Your task to perform on an android device: toggle wifi Image 0: 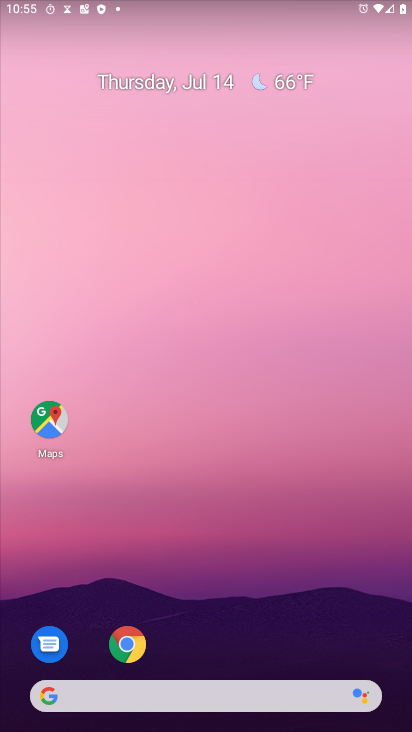
Step 0: drag from (178, 544) to (114, 207)
Your task to perform on an android device: toggle wifi Image 1: 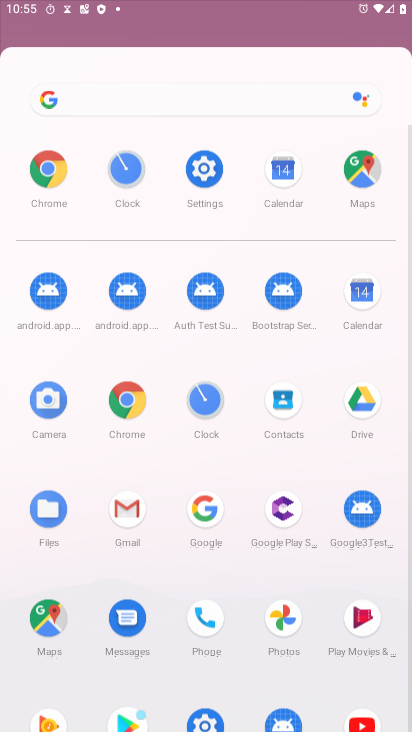
Step 1: drag from (238, 513) to (219, 330)
Your task to perform on an android device: toggle wifi Image 2: 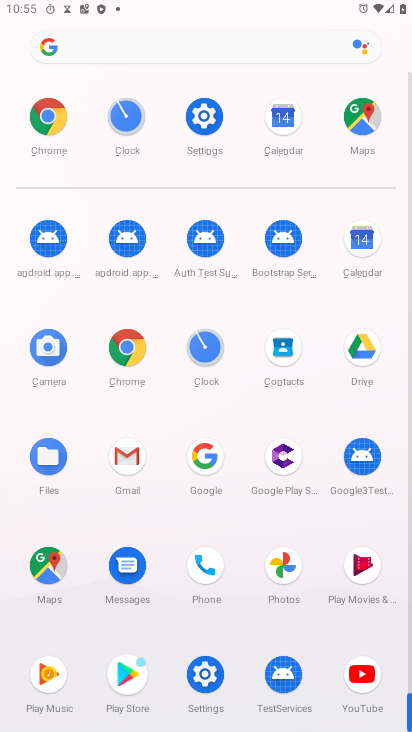
Step 2: click (215, 114)
Your task to perform on an android device: toggle wifi Image 3: 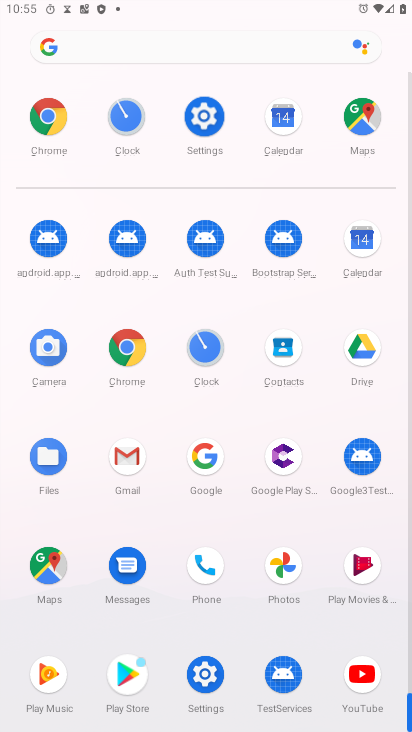
Step 3: click (204, 114)
Your task to perform on an android device: toggle wifi Image 4: 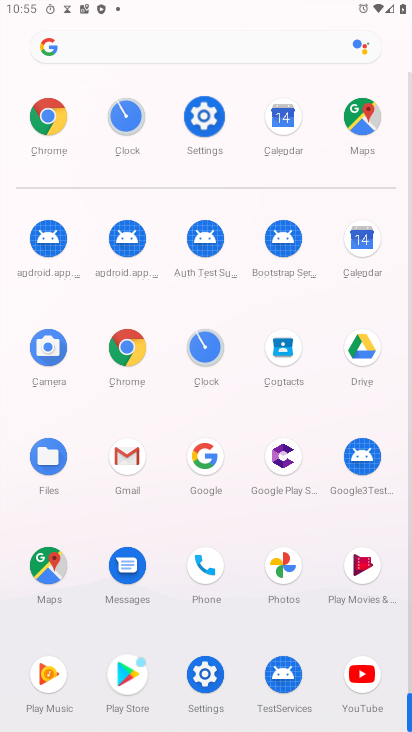
Step 4: click (204, 114)
Your task to perform on an android device: toggle wifi Image 5: 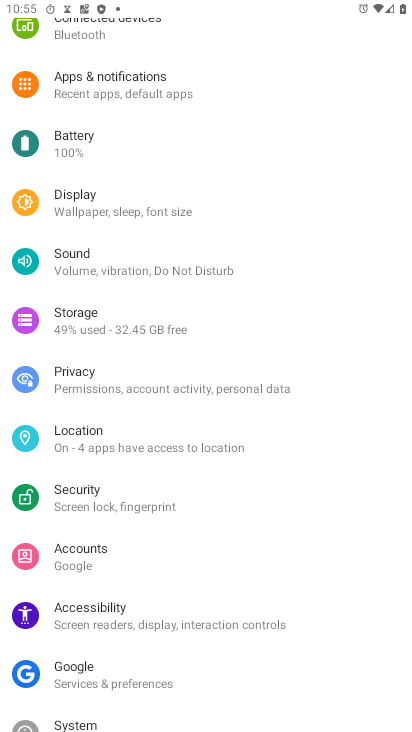
Step 5: click (163, 542)
Your task to perform on an android device: toggle wifi Image 6: 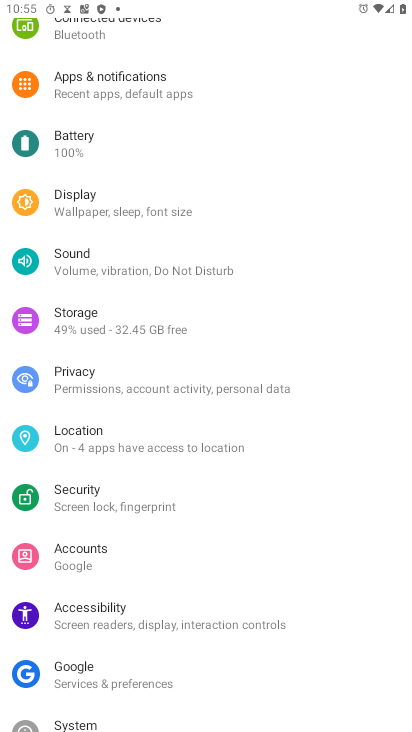
Step 6: drag from (109, 204) to (167, 519)
Your task to perform on an android device: toggle wifi Image 7: 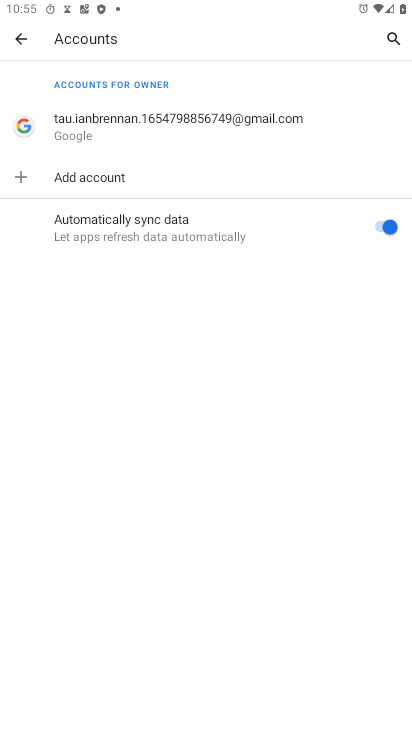
Step 7: click (109, 102)
Your task to perform on an android device: toggle wifi Image 8: 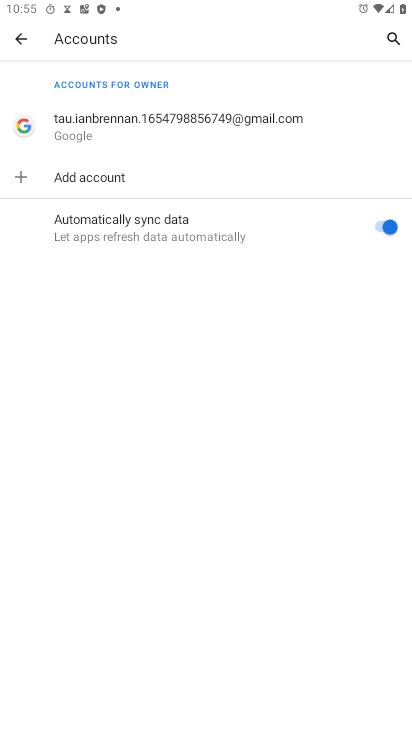
Step 8: click (22, 41)
Your task to perform on an android device: toggle wifi Image 9: 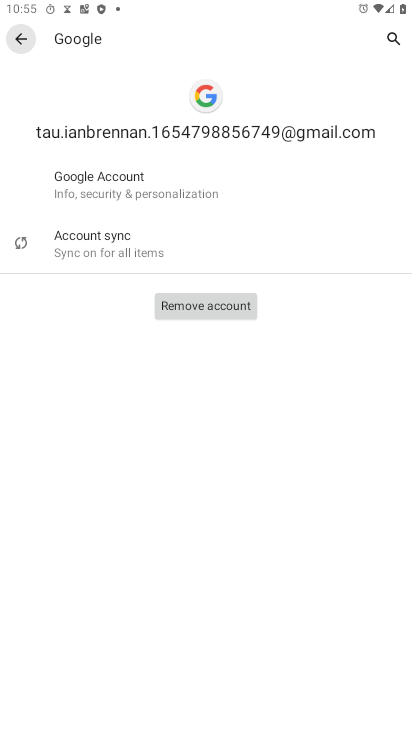
Step 9: click (22, 41)
Your task to perform on an android device: toggle wifi Image 10: 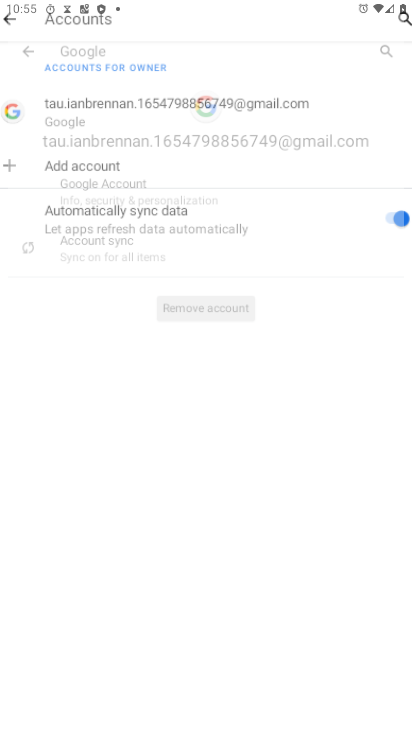
Step 10: click (23, 43)
Your task to perform on an android device: toggle wifi Image 11: 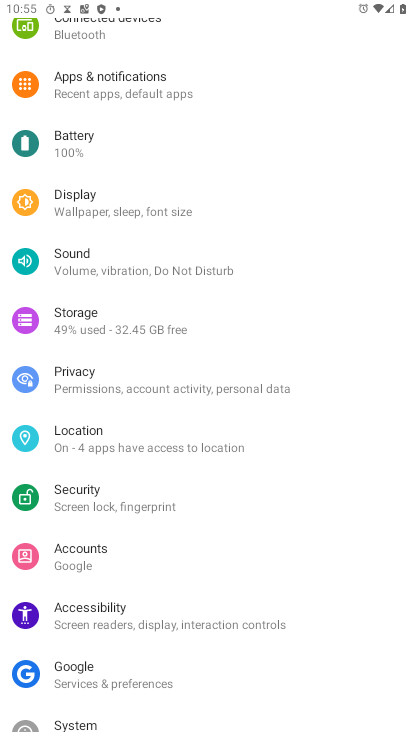
Step 11: click (99, 88)
Your task to perform on an android device: toggle wifi Image 12: 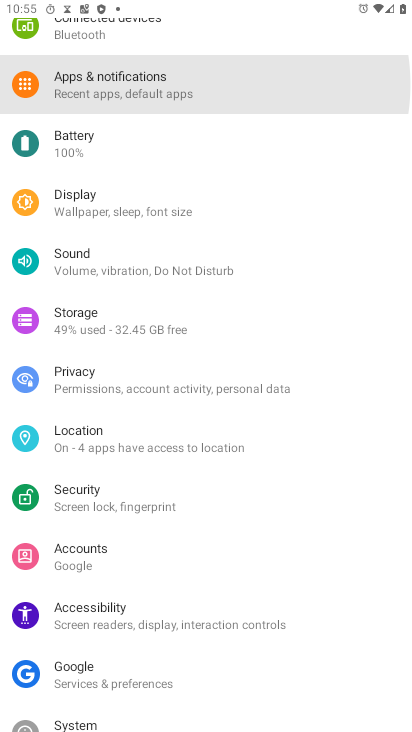
Step 12: click (100, 87)
Your task to perform on an android device: toggle wifi Image 13: 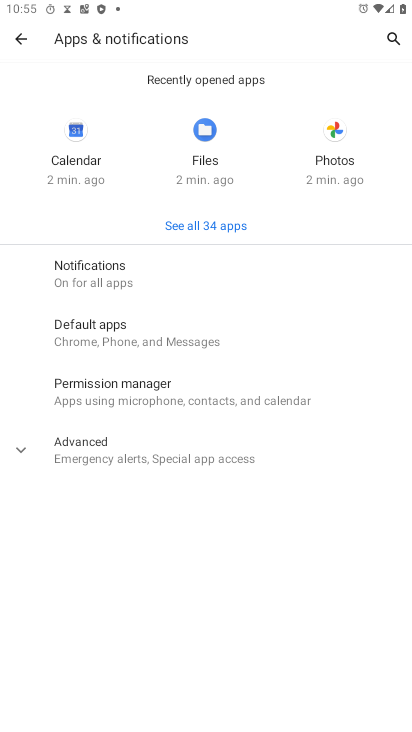
Step 13: click (16, 35)
Your task to perform on an android device: toggle wifi Image 14: 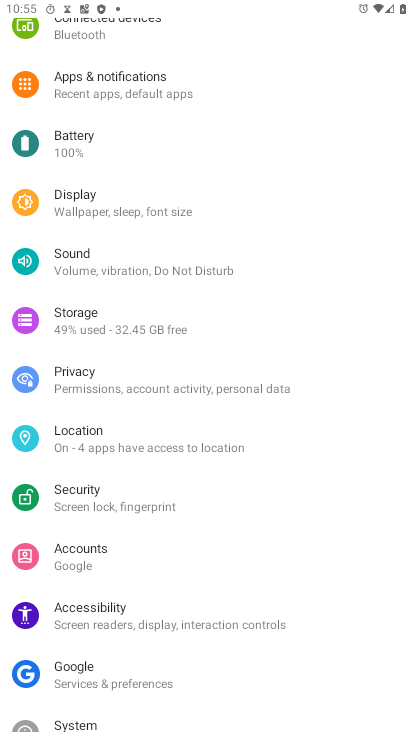
Step 14: drag from (90, 75) to (189, 631)
Your task to perform on an android device: toggle wifi Image 15: 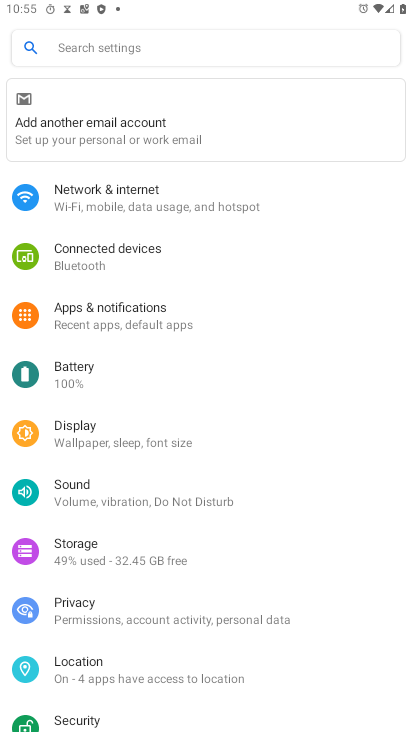
Step 15: click (113, 199)
Your task to perform on an android device: toggle wifi Image 16: 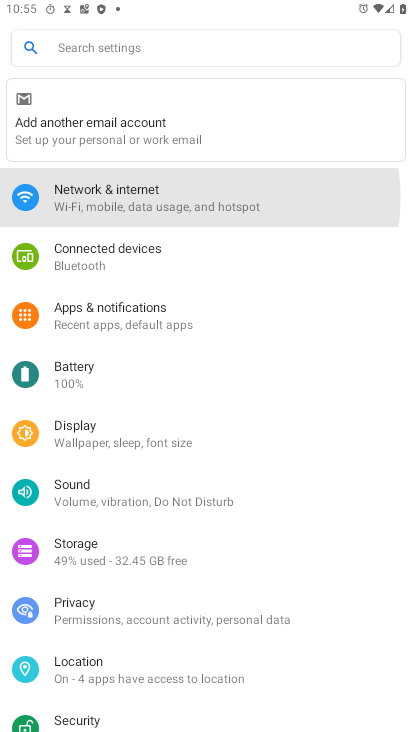
Step 16: click (113, 199)
Your task to perform on an android device: toggle wifi Image 17: 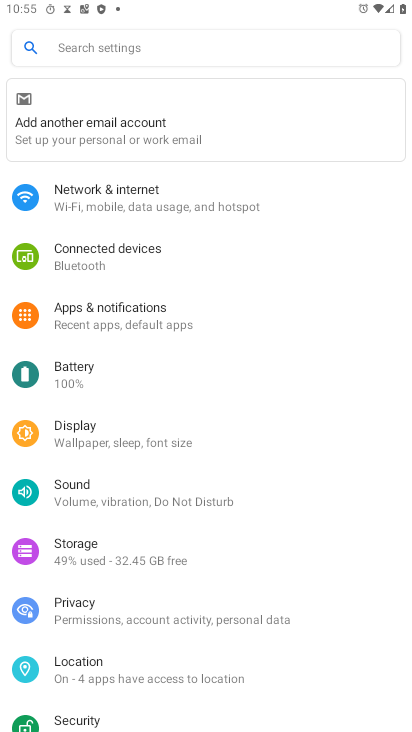
Step 17: click (113, 199)
Your task to perform on an android device: toggle wifi Image 18: 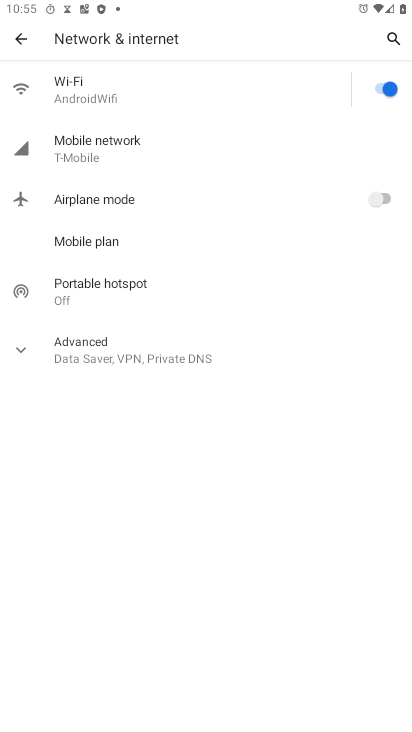
Step 18: task complete